Your task to perform on an android device: Open Chrome and go to settings Image 0: 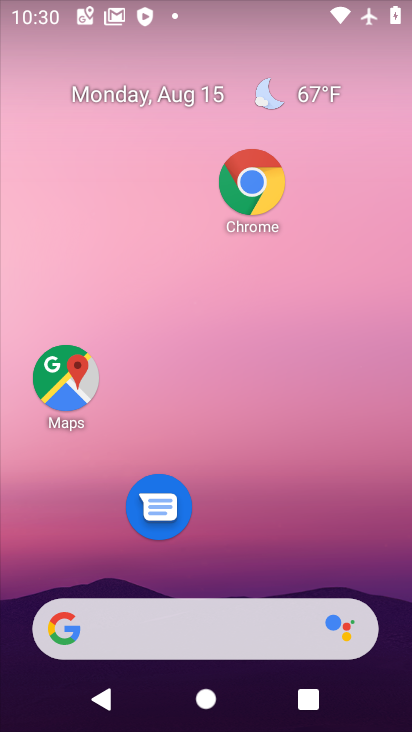
Step 0: click (266, 211)
Your task to perform on an android device: Open Chrome and go to settings Image 1: 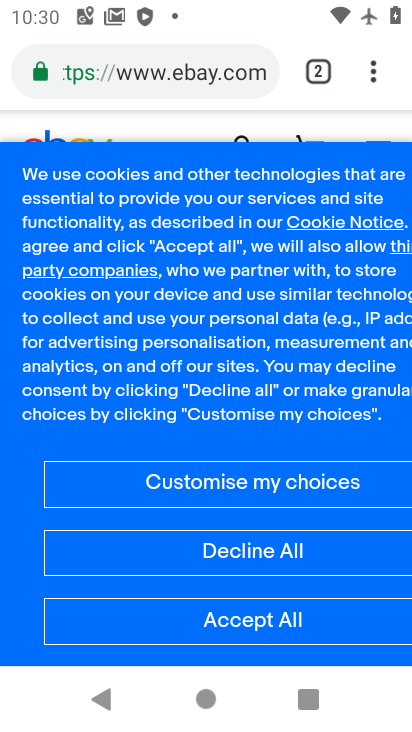
Step 1: click (382, 59)
Your task to perform on an android device: Open Chrome and go to settings Image 2: 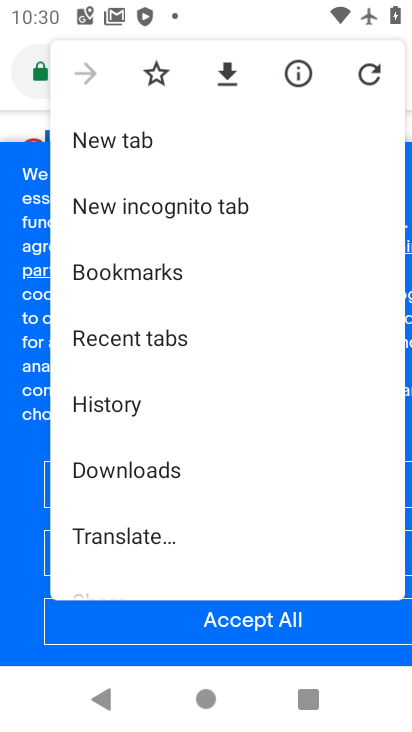
Step 2: task complete